Your task to perform on an android device: move an email to a new category in the gmail app Image 0: 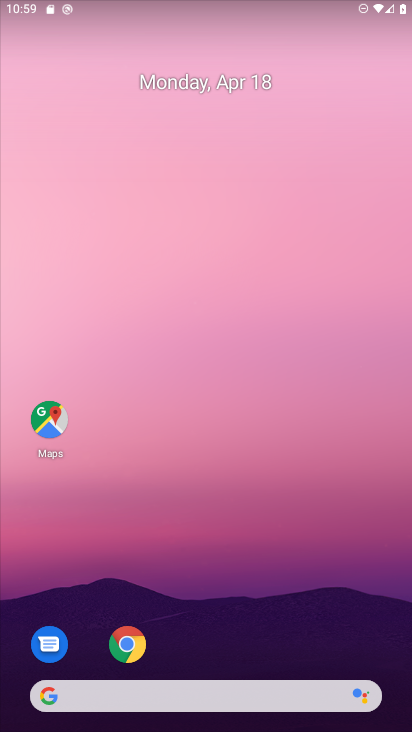
Step 0: drag from (183, 669) to (234, 121)
Your task to perform on an android device: move an email to a new category in the gmail app Image 1: 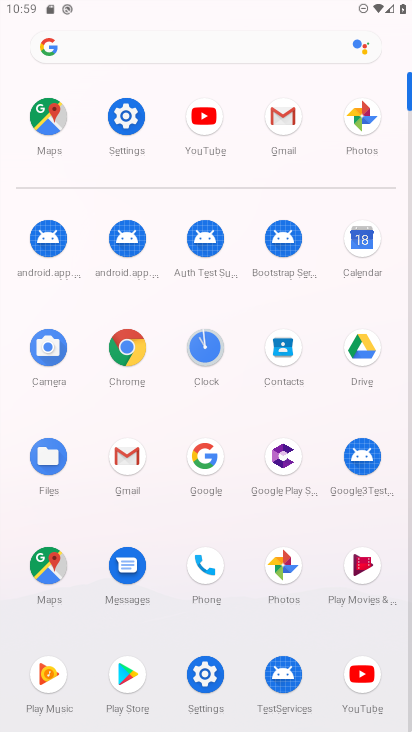
Step 1: click (278, 116)
Your task to perform on an android device: move an email to a new category in the gmail app Image 2: 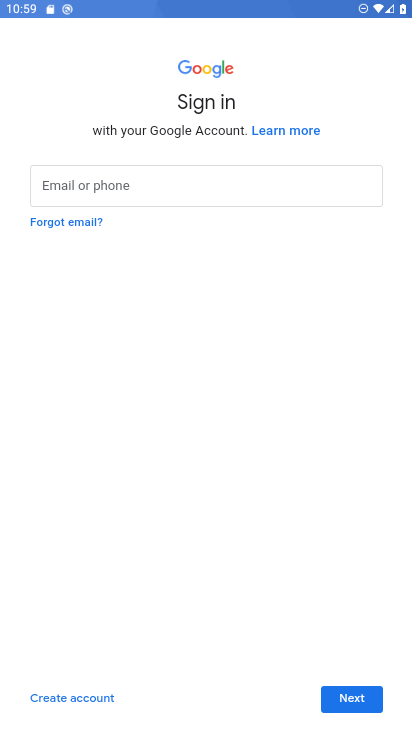
Step 2: click (139, 186)
Your task to perform on an android device: move an email to a new category in the gmail app Image 3: 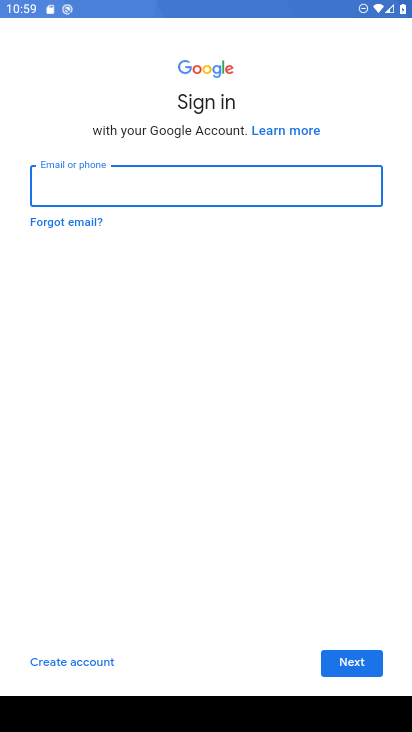
Step 3: click (351, 657)
Your task to perform on an android device: move an email to a new category in the gmail app Image 4: 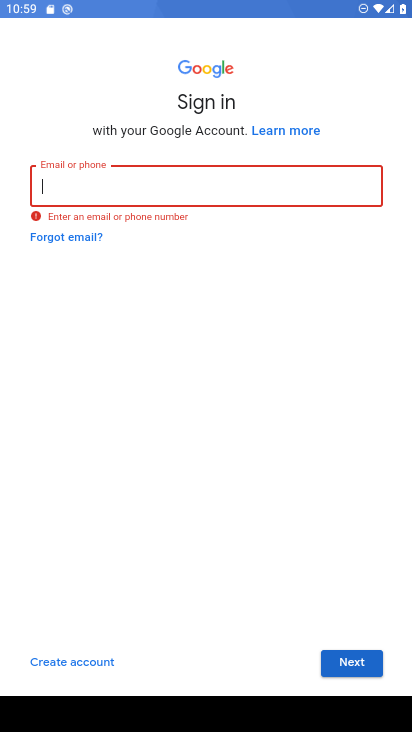
Step 4: task complete